Your task to perform on an android device: Open the map Image 0: 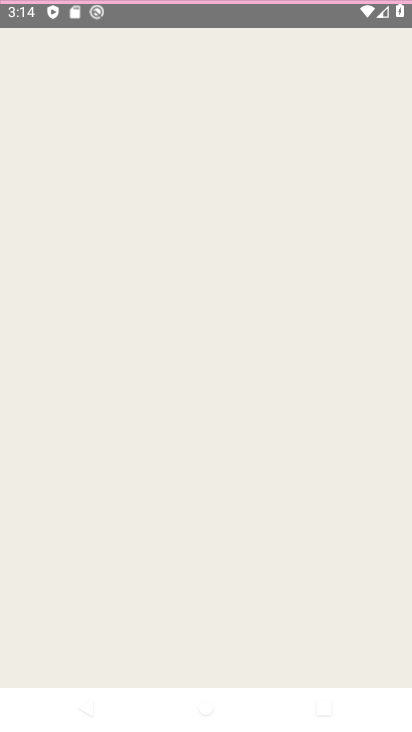
Step 0: click (44, 358)
Your task to perform on an android device: Open the map Image 1: 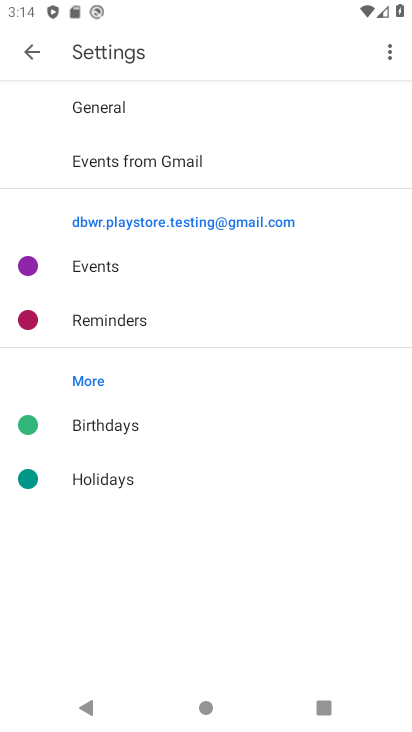
Step 1: press home button
Your task to perform on an android device: Open the map Image 2: 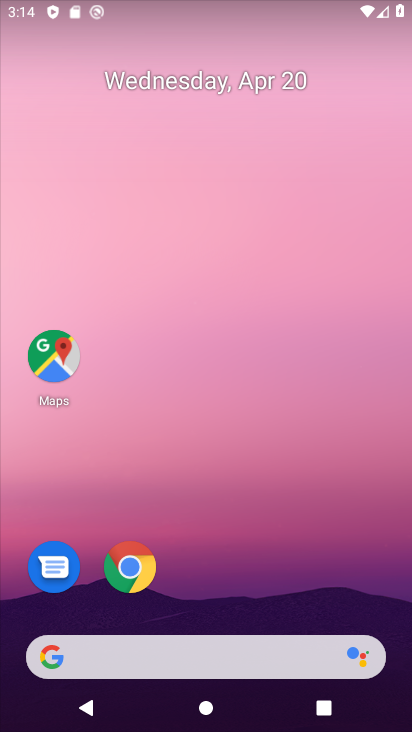
Step 2: click (51, 369)
Your task to perform on an android device: Open the map Image 3: 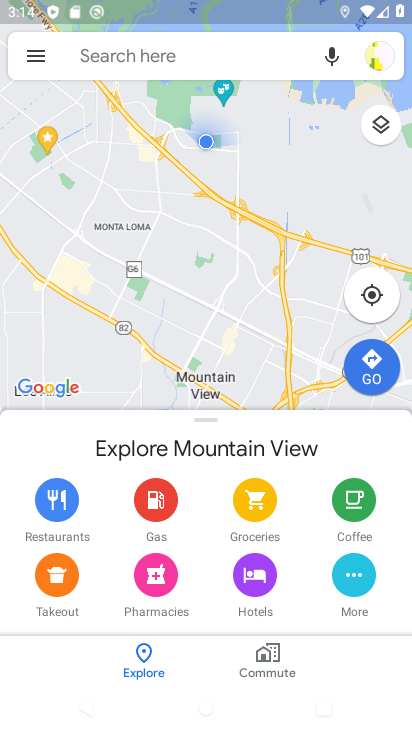
Step 3: task complete